Your task to perform on an android device: Open Amazon Image 0: 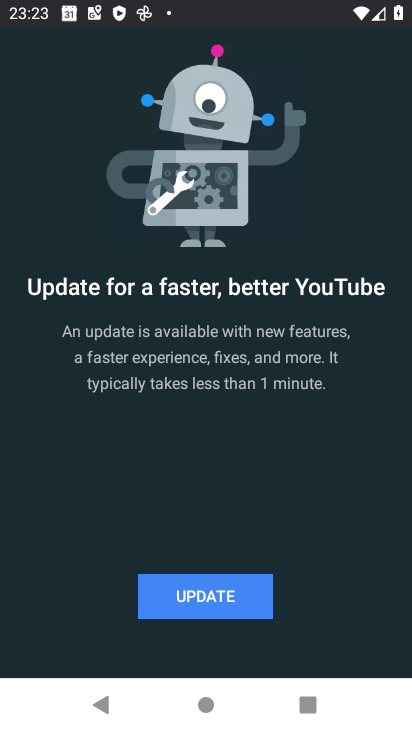
Step 0: press home button
Your task to perform on an android device: Open Amazon Image 1: 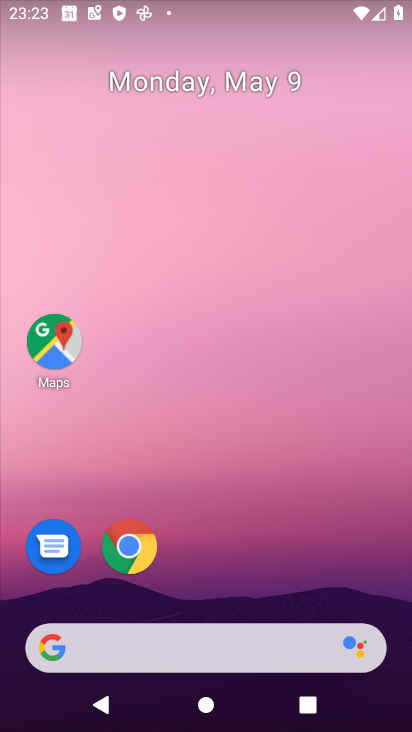
Step 1: click (241, 660)
Your task to perform on an android device: Open Amazon Image 2: 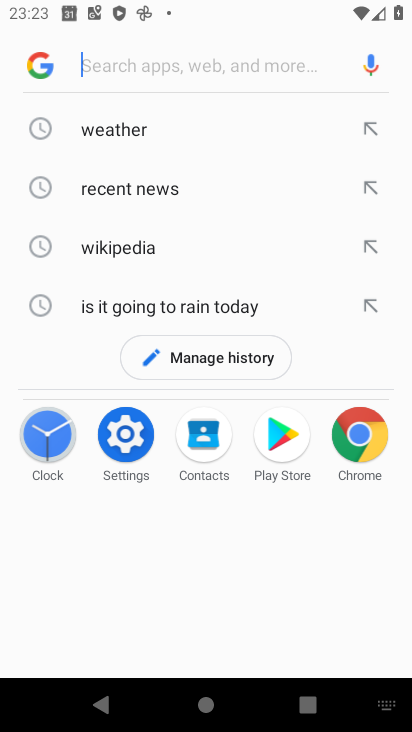
Step 2: type "amazon"
Your task to perform on an android device: Open Amazon Image 3: 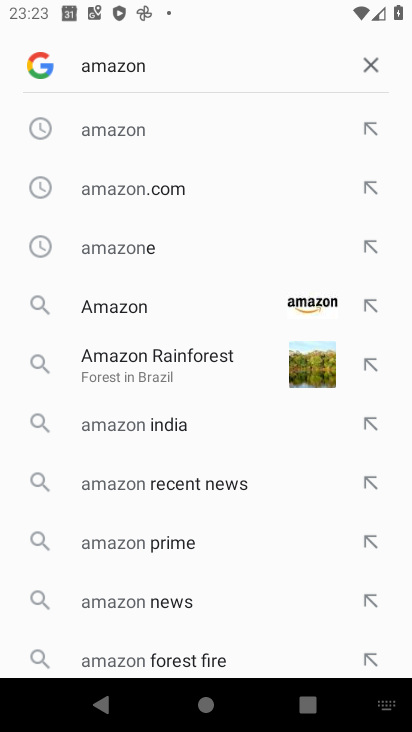
Step 3: click (195, 129)
Your task to perform on an android device: Open Amazon Image 4: 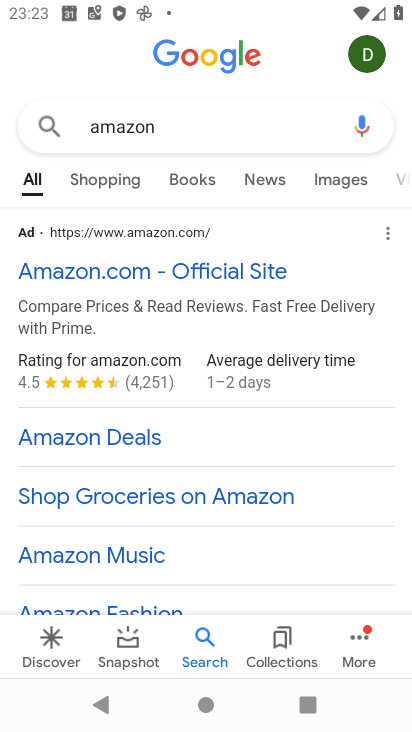
Step 4: click (177, 227)
Your task to perform on an android device: Open Amazon Image 5: 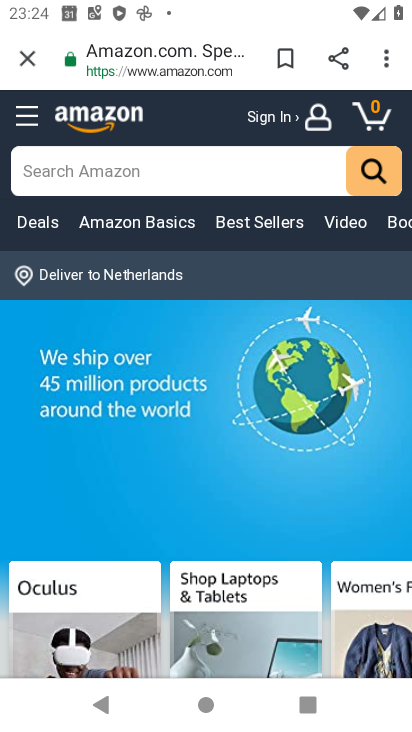
Step 5: task complete